Your task to perform on an android device: Search for Mexican restaurants on Maps Image 0: 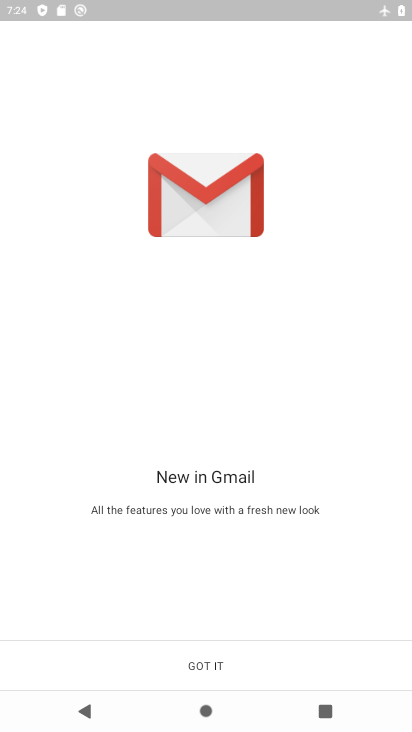
Step 0: press home button
Your task to perform on an android device: Search for Mexican restaurants on Maps Image 1: 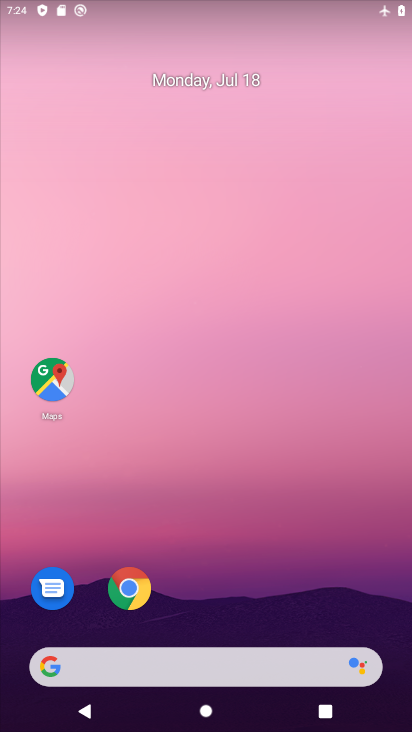
Step 1: drag from (204, 633) to (230, 56)
Your task to perform on an android device: Search for Mexican restaurants on Maps Image 2: 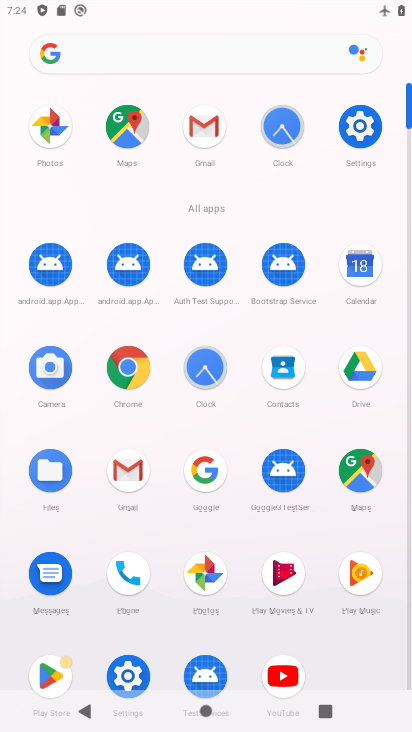
Step 2: click (371, 462)
Your task to perform on an android device: Search for Mexican restaurants on Maps Image 3: 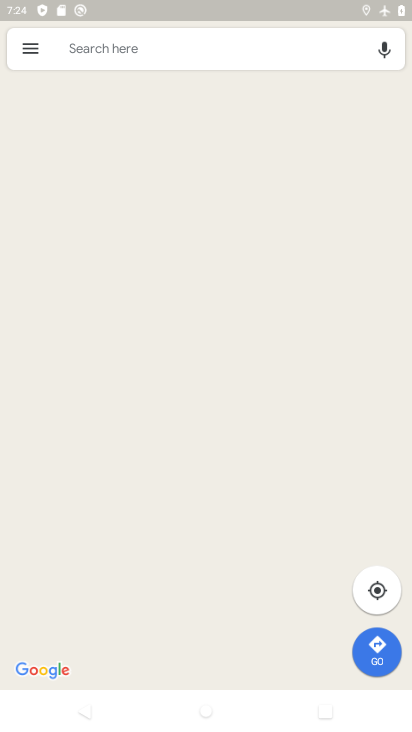
Step 3: click (210, 57)
Your task to perform on an android device: Search for Mexican restaurants on Maps Image 4: 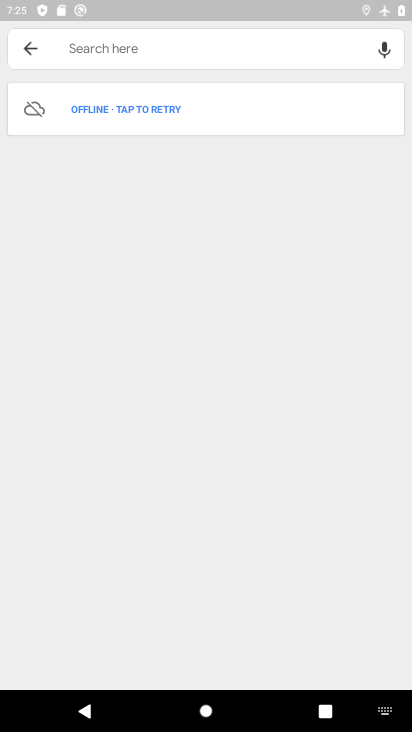
Step 4: type "mexican restaurants"
Your task to perform on an android device: Search for Mexican restaurants on Maps Image 5: 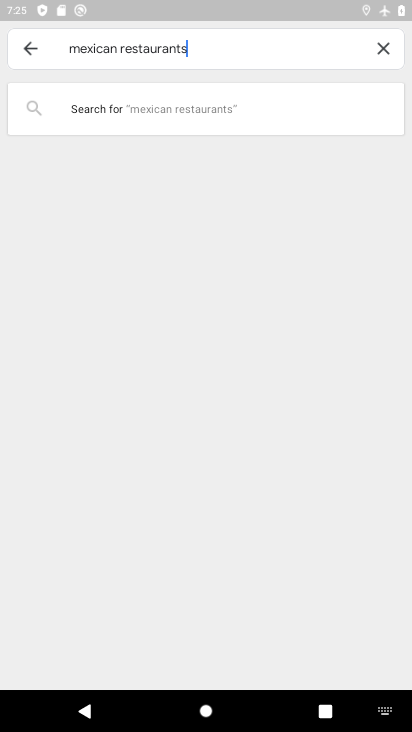
Step 5: click (213, 103)
Your task to perform on an android device: Search for Mexican restaurants on Maps Image 6: 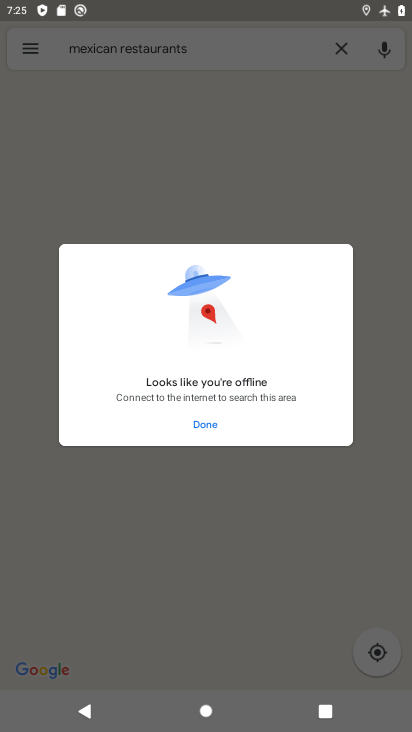
Step 6: click (231, 432)
Your task to perform on an android device: Search for Mexican restaurants on Maps Image 7: 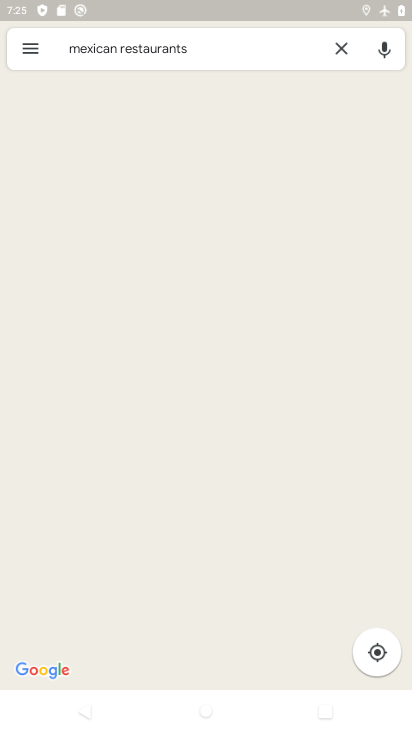
Step 7: task complete